Your task to perform on an android device: install app "Lyft - Rideshare, Bikes, Scooters & Transit" Image 0: 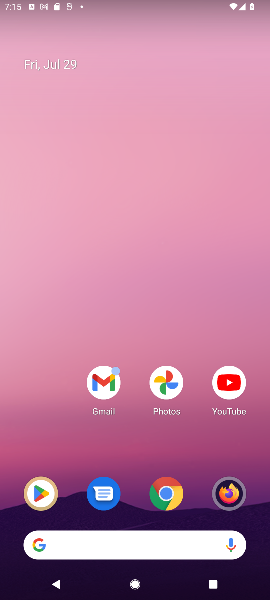
Step 0: drag from (161, 589) to (147, 149)
Your task to perform on an android device: install app "Lyft - Rideshare, Bikes, Scooters & Transit" Image 1: 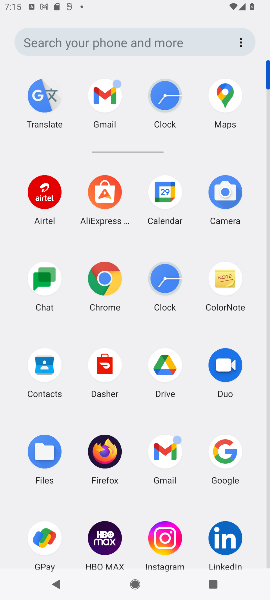
Step 1: drag from (130, 515) to (130, 226)
Your task to perform on an android device: install app "Lyft - Rideshare, Bikes, Scooters & Transit" Image 2: 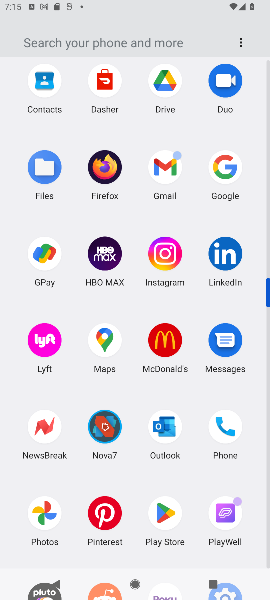
Step 2: click (159, 517)
Your task to perform on an android device: install app "Lyft - Rideshare, Bikes, Scooters & Transit" Image 3: 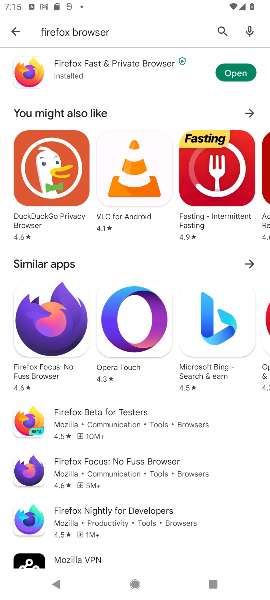
Step 3: click (222, 28)
Your task to perform on an android device: install app "Lyft - Rideshare, Bikes, Scooters & Transit" Image 4: 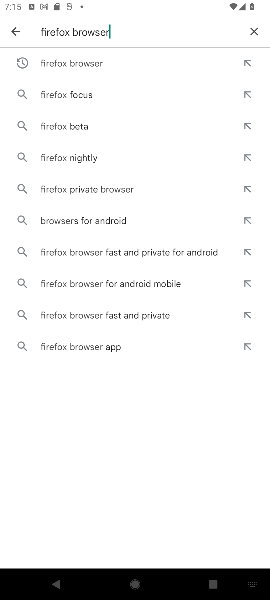
Step 4: click (263, 31)
Your task to perform on an android device: install app "Lyft - Rideshare, Bikes, Scooters & Transit" Image 5: 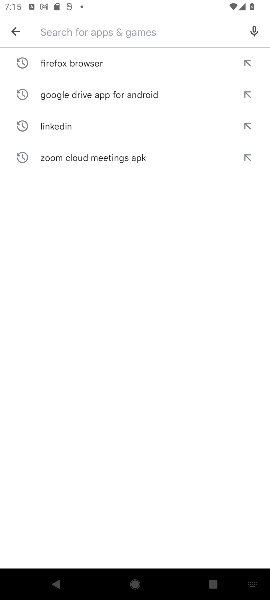
Step 5: type "Lyft - Rideshare, Bikes, Scooters & Transit"
Your task to perform on an android device: install app "Lyft - Rideshare, Bikes, Scooters & Transit" Image 6: 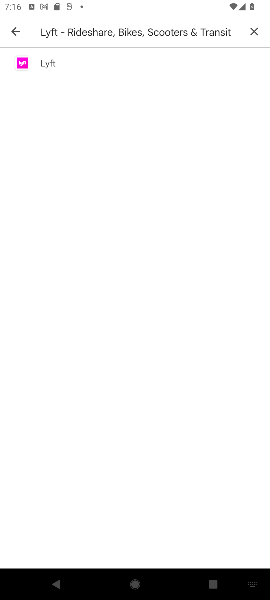
Step 6: click (50, 56)
Your task to perform on an android device: install app "Lyft - Rideshare, Bikes, Scooters & Transit" Image 7: 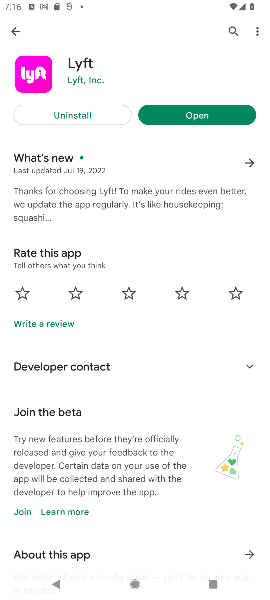
Step 7: task complete